Your task to perform on an android device: Go to accessibility settings Image 0: 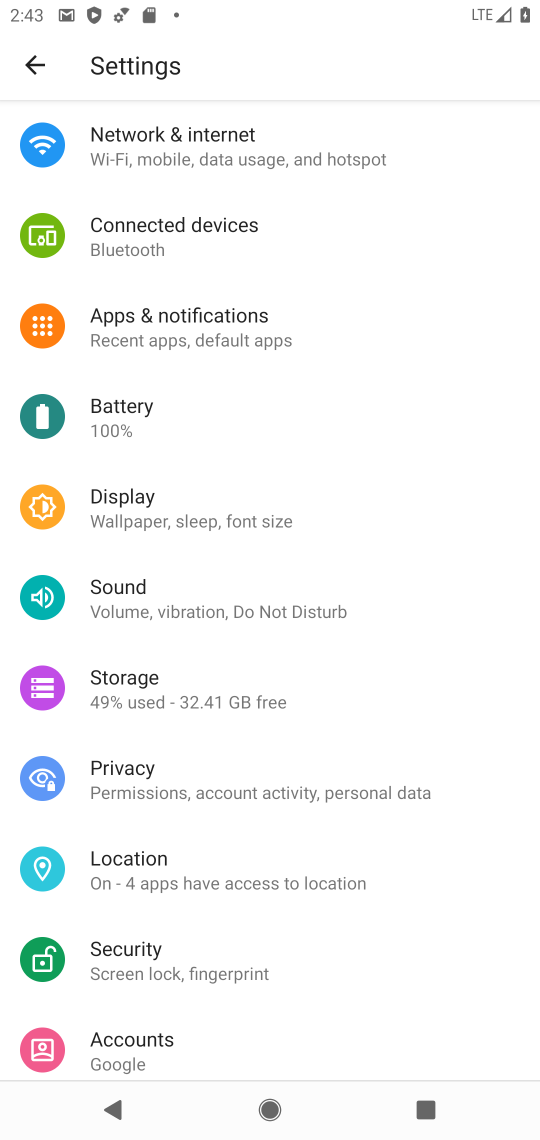
Step 0: drag from (248, 970) to (314, 592)
Your task to perform on an android device: Go to accessibility settings Image 1: 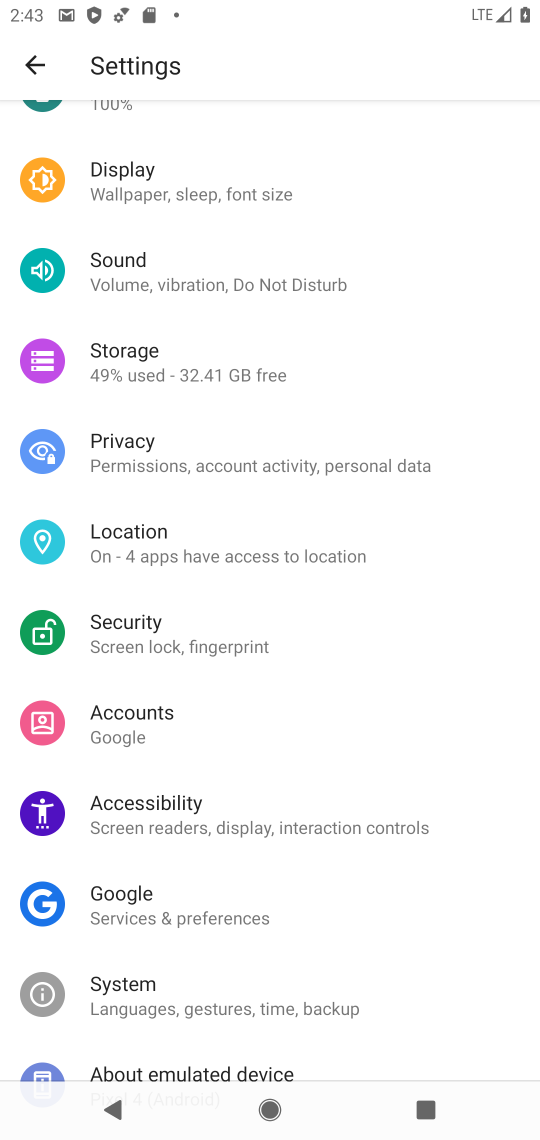
Step 1: click (183, 803)
Your task to perform on an android device: Go to accessibility settings Image 2: 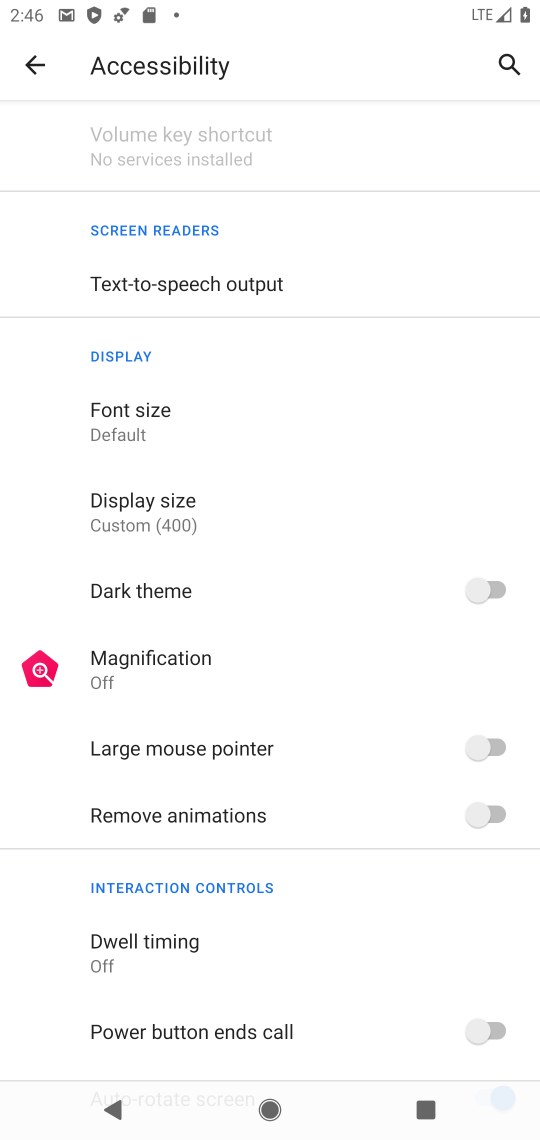
Step 2: task complete